Your task to perform on an android device: Empty the shopping cart on amazon. Image 0: 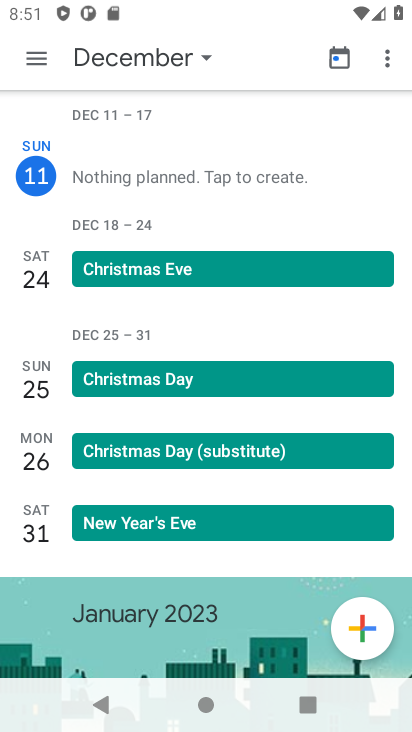
Step 0: press home button
Your task to perform on an android device: Empty the shopping cart on amazon. Image 1: 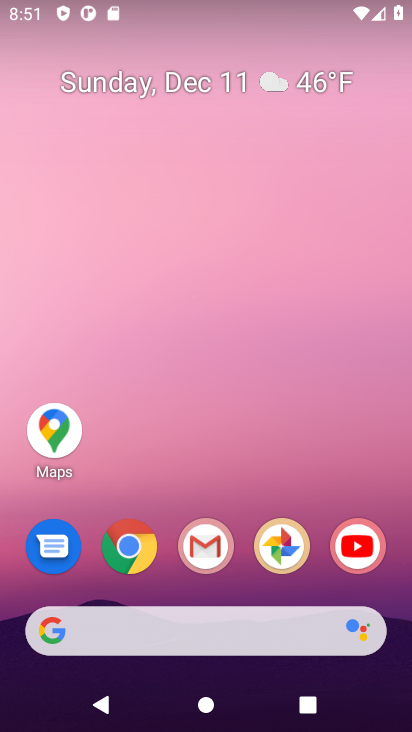
Step 1: click (128, 551)
Your task to perform on an android device: Empty the shopping cart on amazon. Image 2: 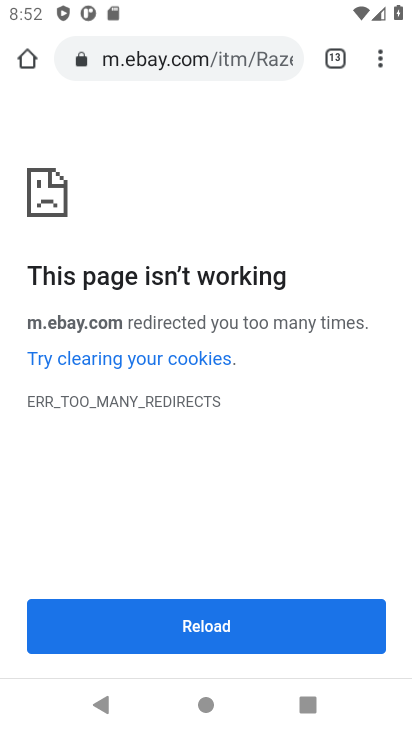
Step 2: click (191, 68)
Your task to perform on an android device: Empty the shopping cart on amazon. Image 3: 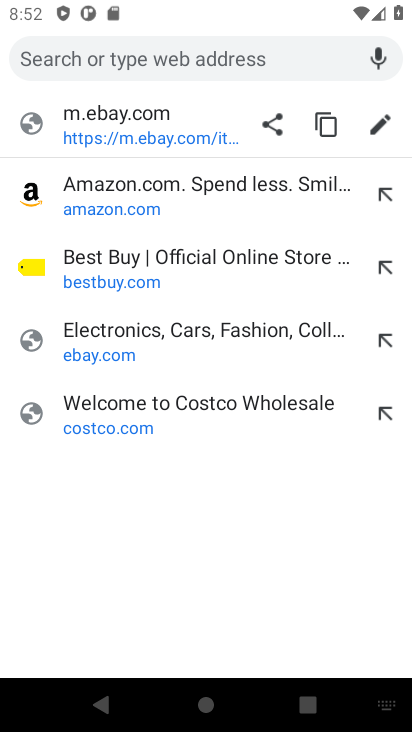
Step 3: click (114, 205)
Your task to perform on an android device: Empty the shopping cart on amazon. Image 4: 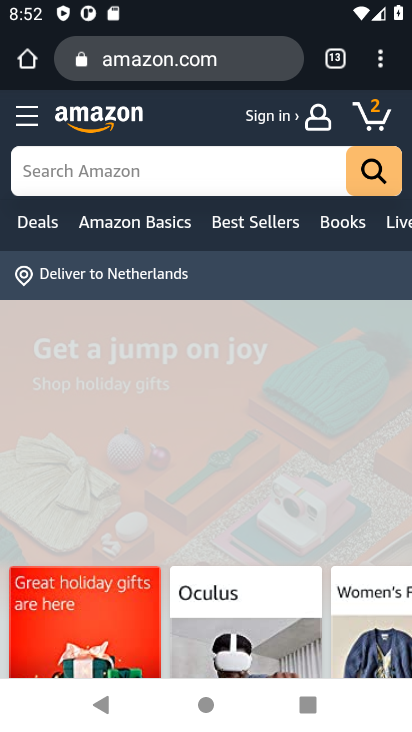
Step 4: click (375, 115)
Your task to perform on an android device: Empty the shopping cart on amazon. Image 5: 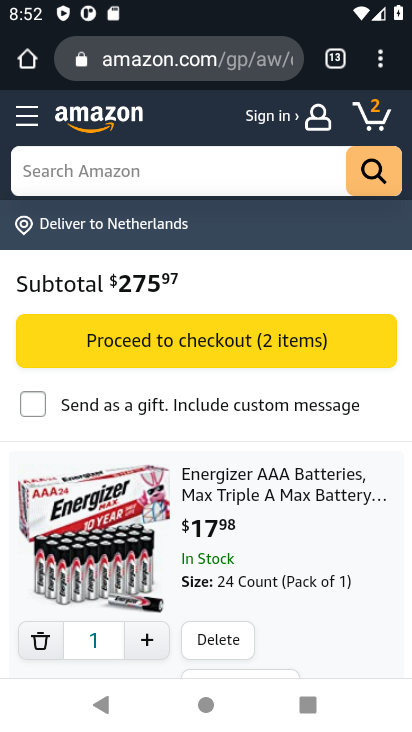
Step 5: click (220, 635)
Your task to perform on an android device: Empty the shopping cart on amazon. Image 6: 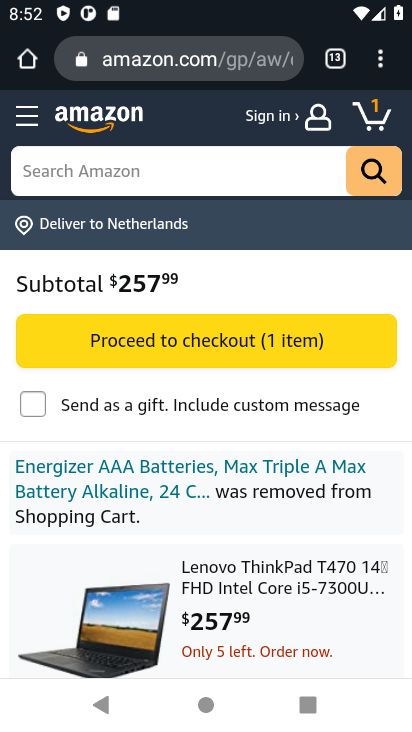
Step 6: drag from (220, 609) to (227, 256)
Your task to perform on an android device: Empty the shopping cart on amazon. Image 7: 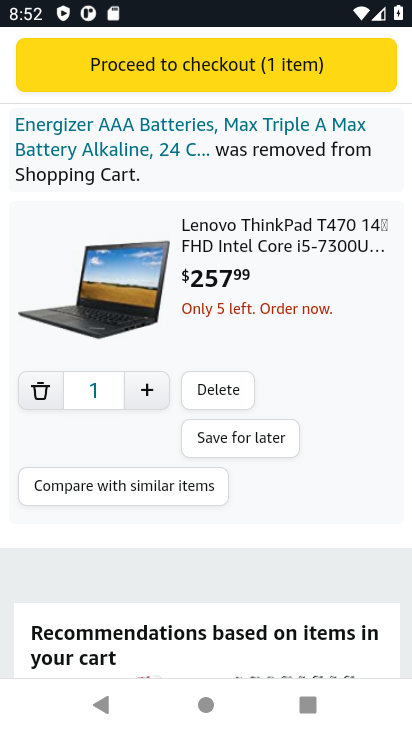
Step 7: click (217, 386)
Your task to perform on an android device: Empty the shopping cart on amazon. Image 8: 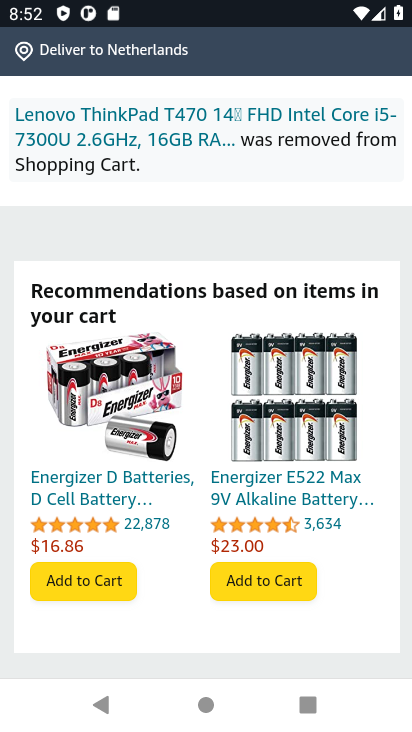
Step 8: task complete